Your task to perform on an android device: Open settings on Google Maps Image 0: 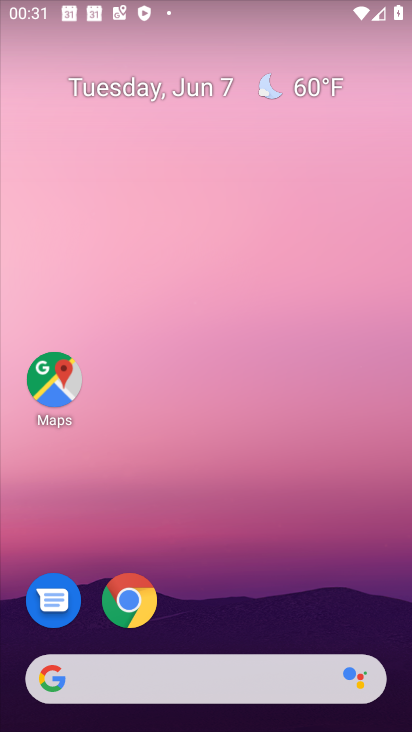
Step 0: drag from (213, 723) to (220, 119)
Your task to perform on an android device: Open settings on Google Maps Image 1: 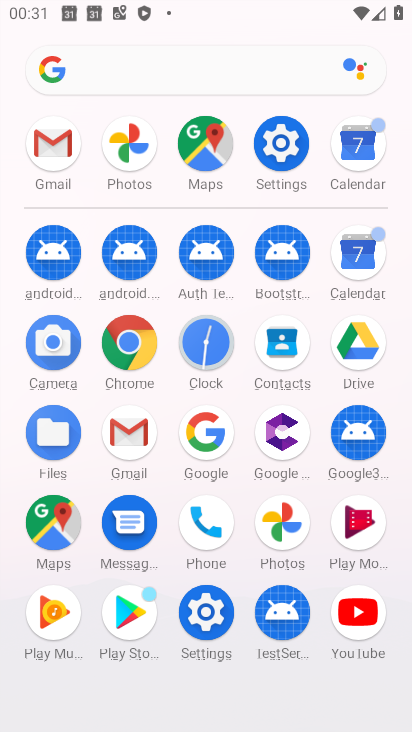
Step 1: click (40, 521)
Your task to perform on an android device: Open settings on Google Maps Image 2: 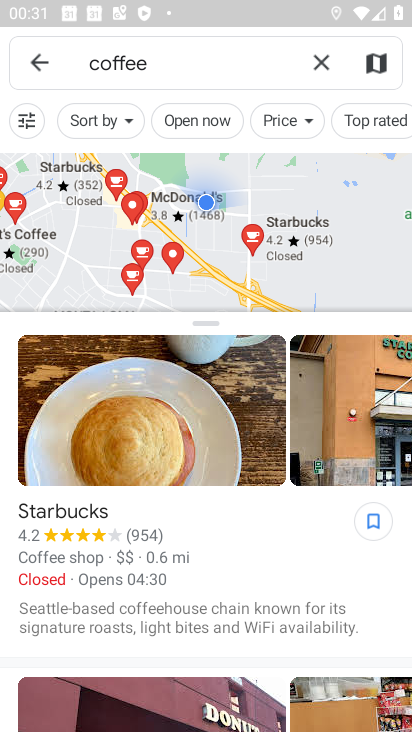
Step 2: click (34, 54)
Your task to perform on an android device: Open settings on Google Maps Image 3: 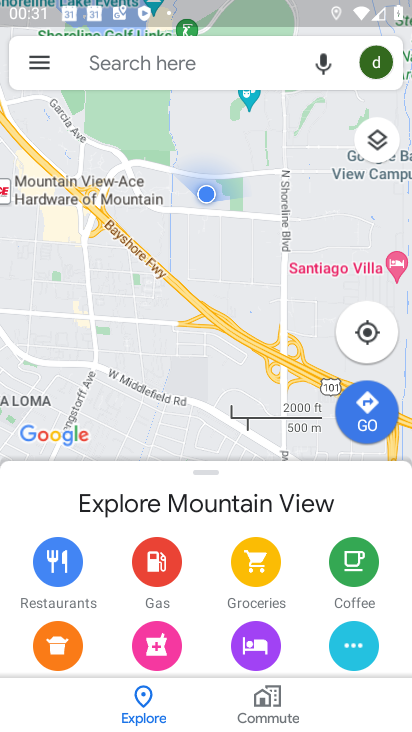
Step 3: click (41, 68)
Your task to perform on an android device: Open settings on Google Maps Image 4: 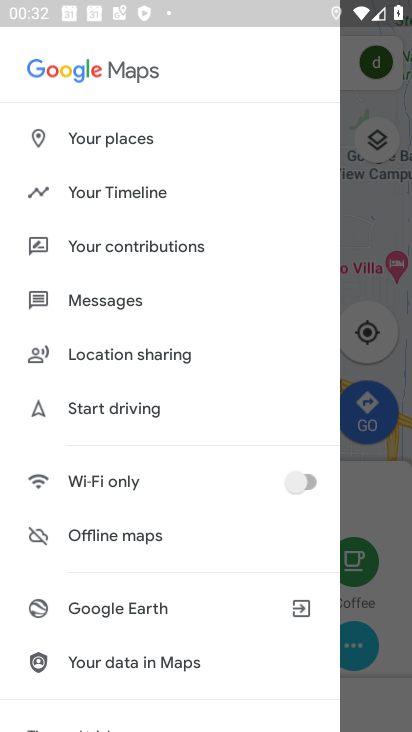
Step 4: drag from (140, 664) to (146, 328)
Your task to perform on an android device: Open settings on Google Maps Image 5: 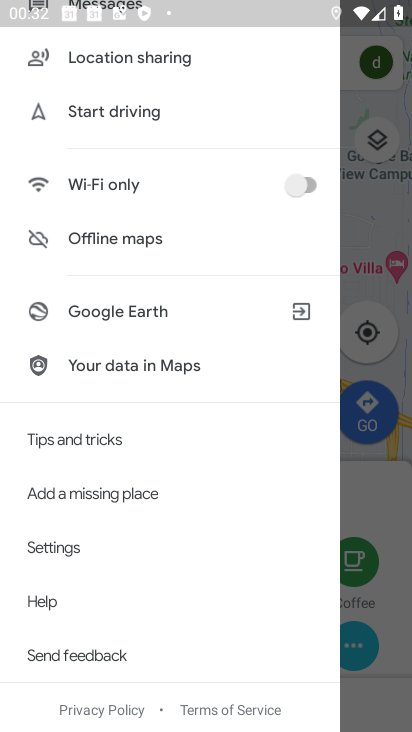
Step 5: click (60, 546)
Your task to perform on an android device: Open settings on Google Maps Image 6: 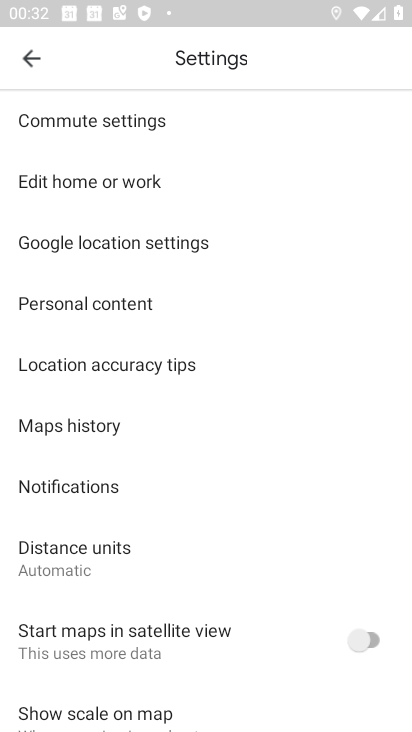
Step 6: task complete